Your task to perform on an android device: Go to Yahoo.com Image 0: 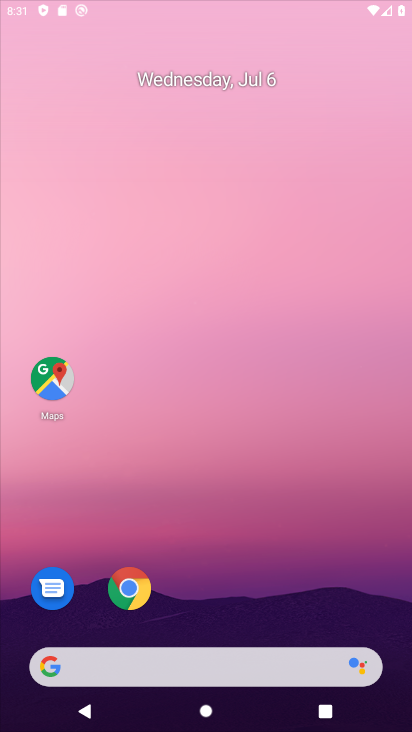
Step 0: click (237, 4)
Your task to perform on an android device: Go to Yahoo.com Image 1: 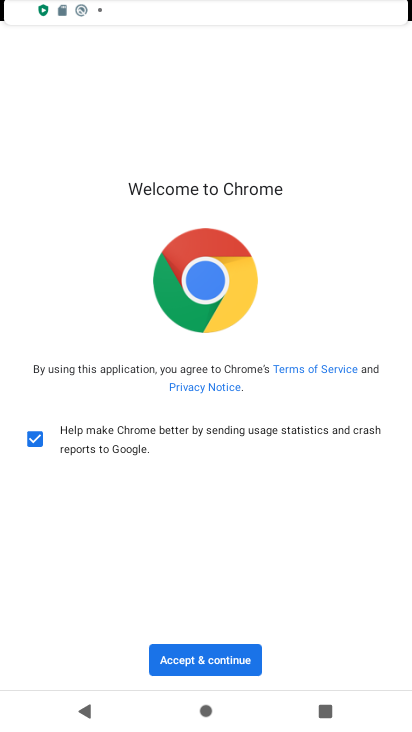
Step 1: press home button
Your task to perform on an android device: Go to Yahoo.com Image 2: 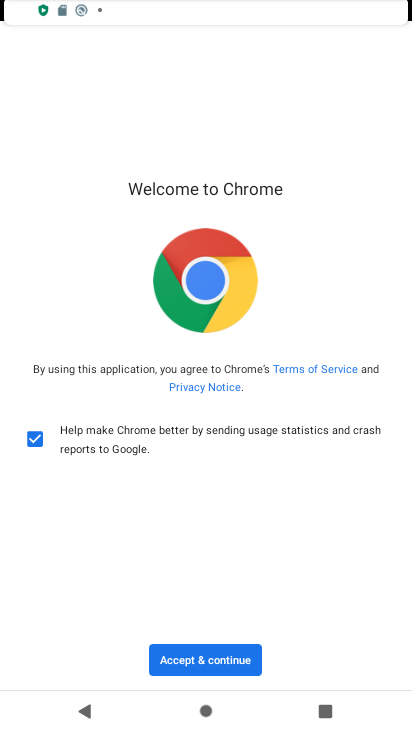
Step 2: press home button
Your task to perform on an android device: Go to Yahoo.com Image 3: 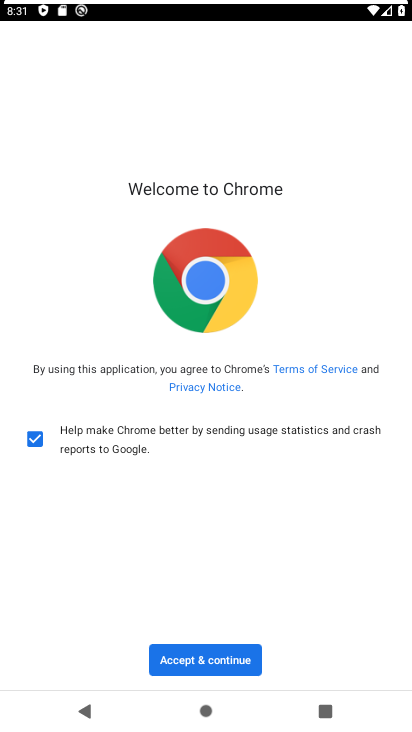
Step 3: drag from (237, 4) to (162, 184)
Your task to perform on an android device: Go to Yahoo.com Image 4: 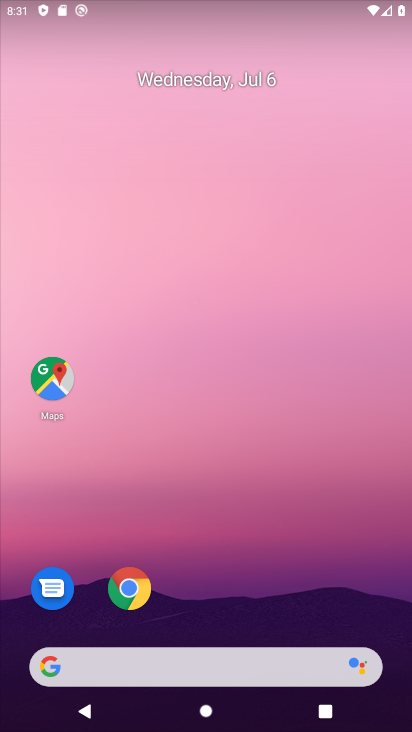
Step 4: drag from (201, 603) to (201, 20)
Your task to perform on an android device: Go to Yahoo.com Image 5: 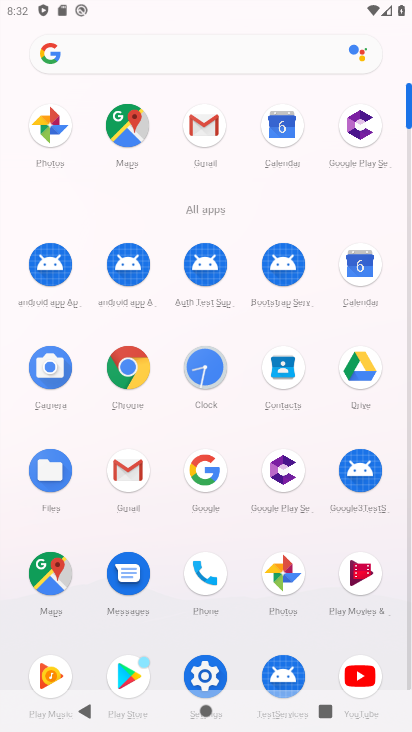
Step 5: click (129, 363)
Your task to perform on an android device: Go to Yahoo.com Image 6: 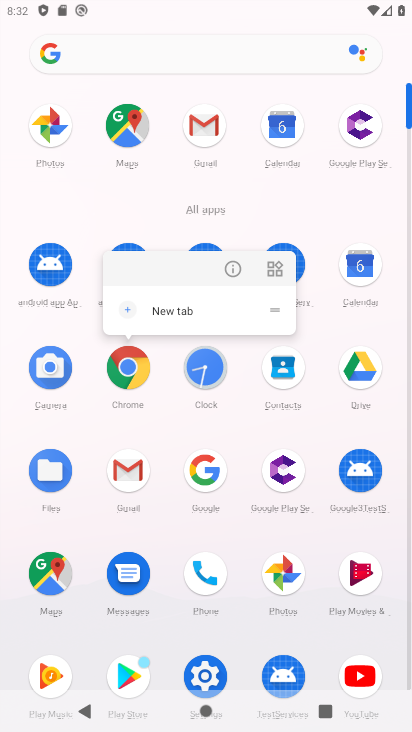
Step 6: click (238, 270)
Your task to perform on an android device: Go to Yahoo.com Image 7: 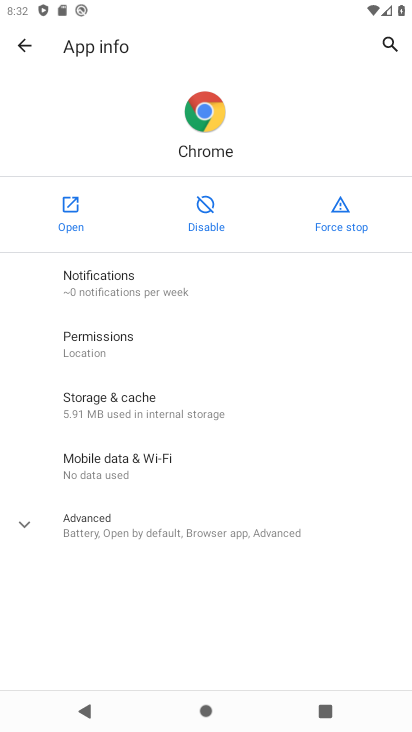
Step 7: click (70, 209)
Your task to perform on an android device: Go to Yahoo.com Image 8: 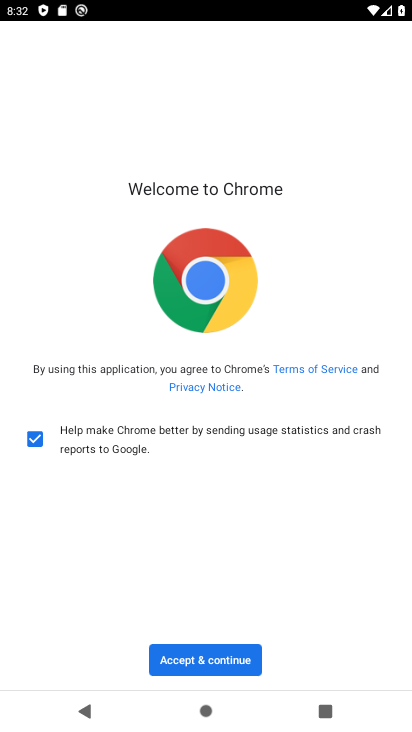
Step 8: click (200, 664)
Your task to perform on an android device: Go to Yahoo.com Image 9: 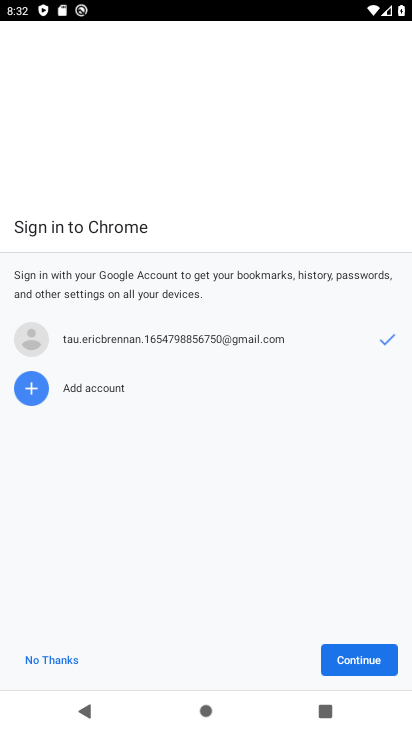
Step 9: click (60, 666)
Your task to perform on an android device: Go to Yahoo.com Image 10: 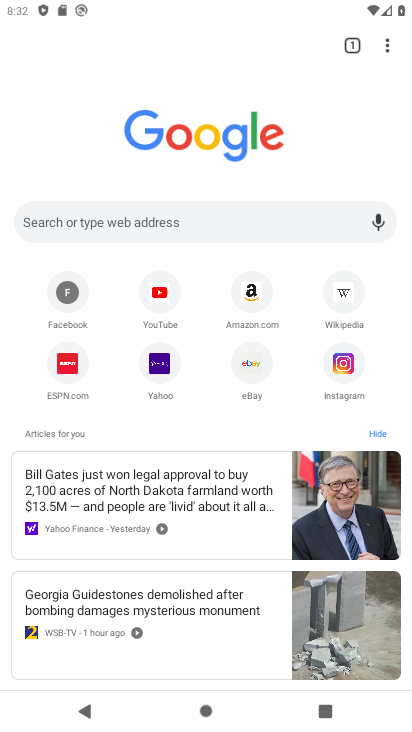
Step 10: click (158, 368)
Your task to perform on an android device: Go to Yahoo.com Image 11: 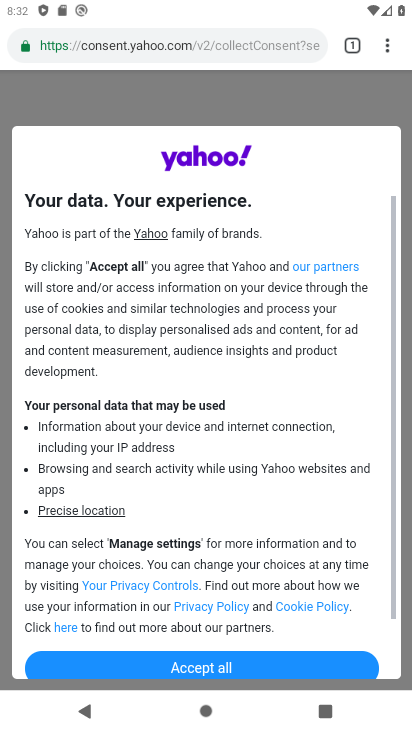
Step 11: drag from (246, 579) to (284, 356)
Your task to perform on an android device: Go to Yahoo.com Image 12: 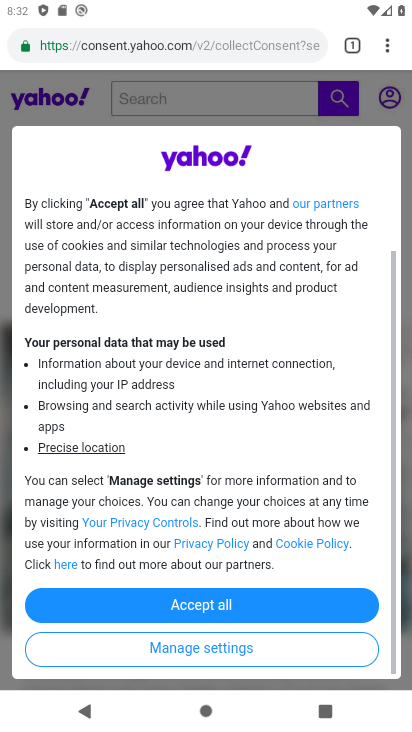
Step 12: click (173, 670)
Your task to perform on an android device: Go to Yahoo.com Image 13: 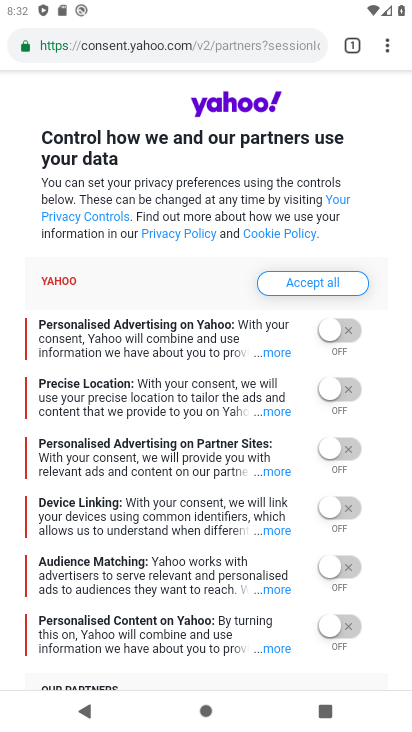
Step 13: task complete